Your task to perform on an android device: toggle priority inbox in the gmail app Image 0: 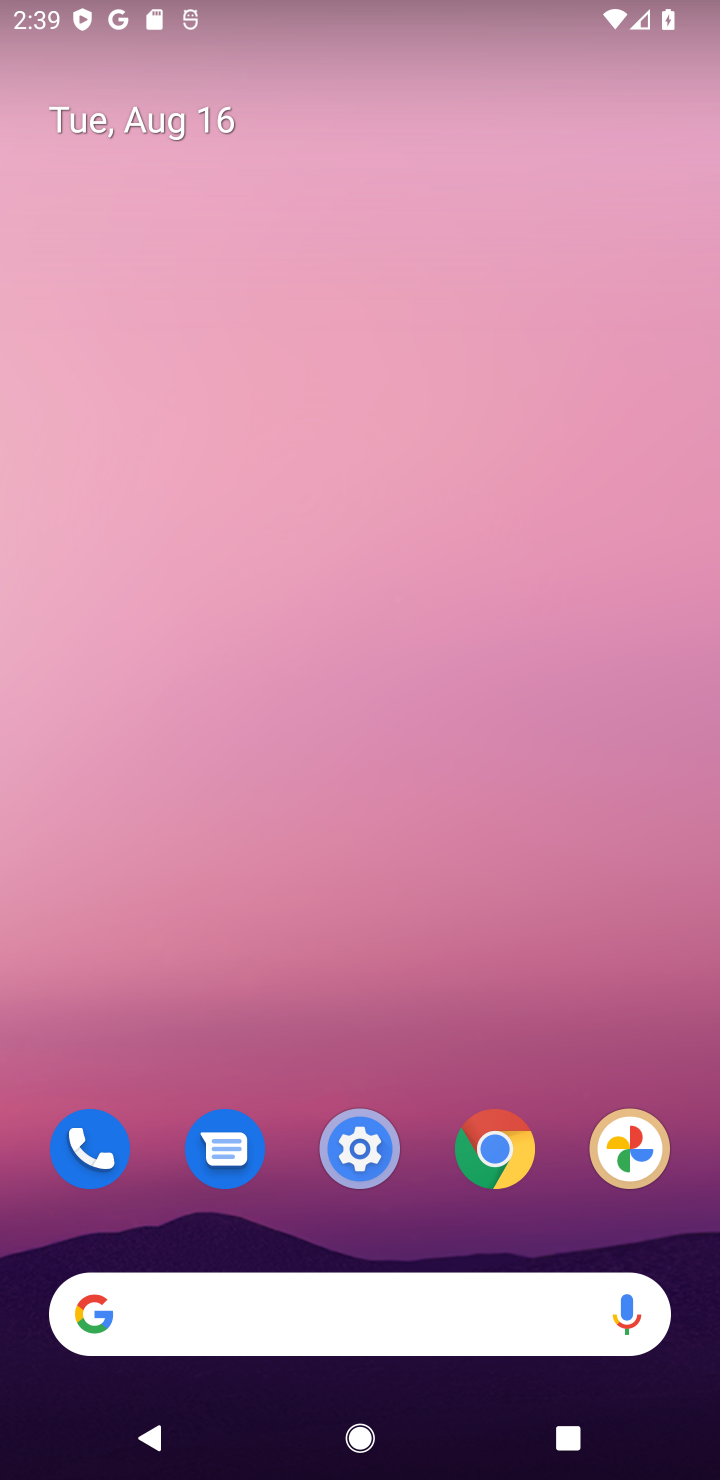
Step 0: drag from (437, 993) to (468, 1)
Your task to perform on an android device: toggle priority inbox in the gmail app Image 1: 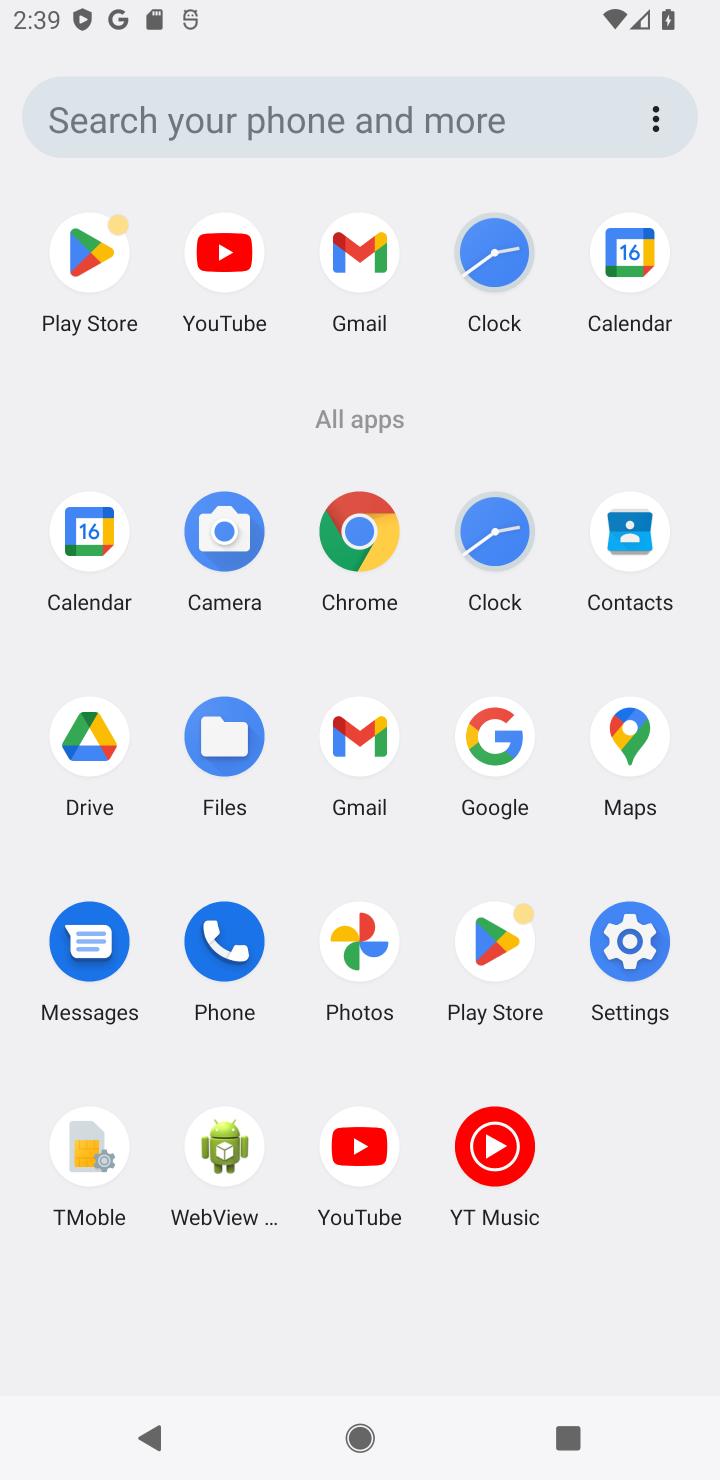
Step 1: click (365, 246)
Your task to perform on an android device: toggle priority inbox in the gmail app Image 2: 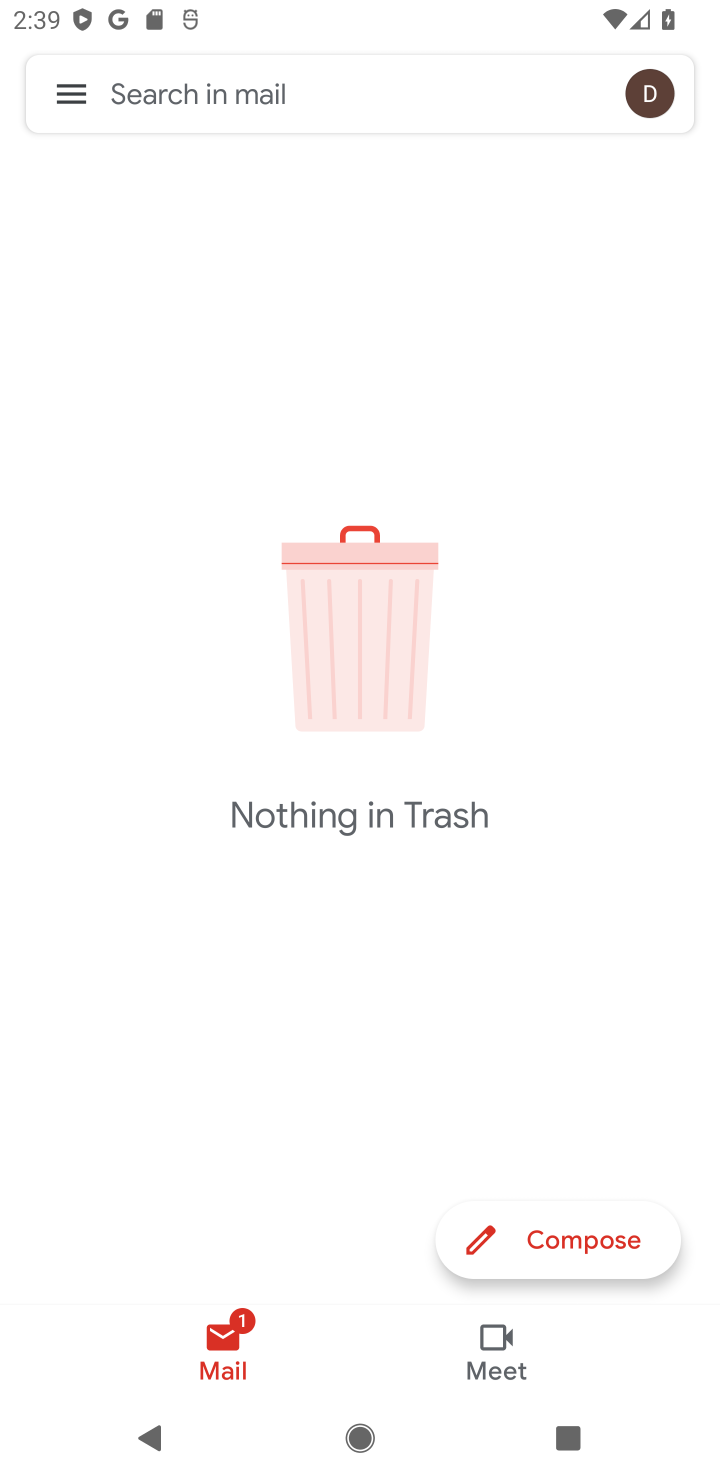
Step 2: click (70, 77)
Your task to perform on an android device: toggle priority inbox in the gmail app Image 3: 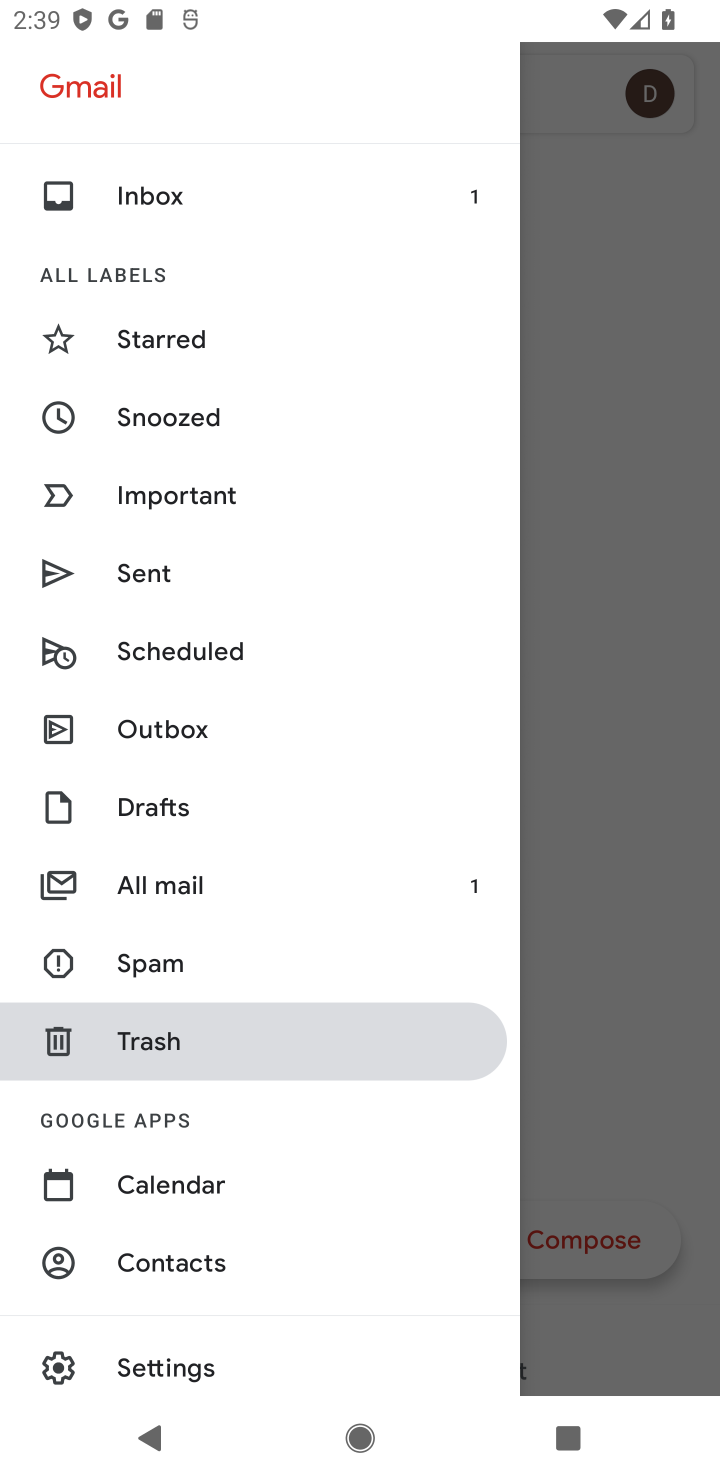
Step 3: drag from (224, 1219) to (286, 118)
Your task to perform on an android device: toggle priority inbox in the gmail app Image 4: 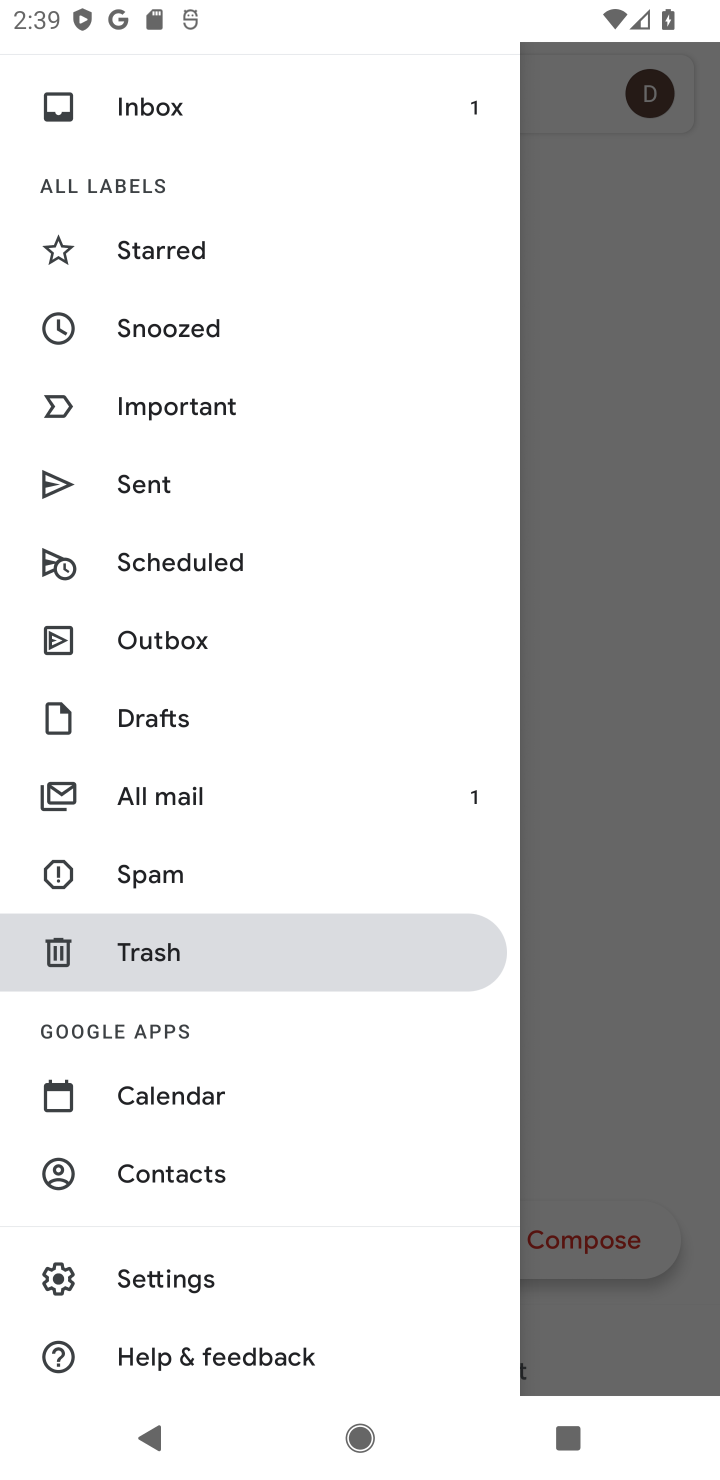
Step 4: click (204, 1261)
Your task to perform on an android device: toggle priority inbox in the gmail app Image 5: 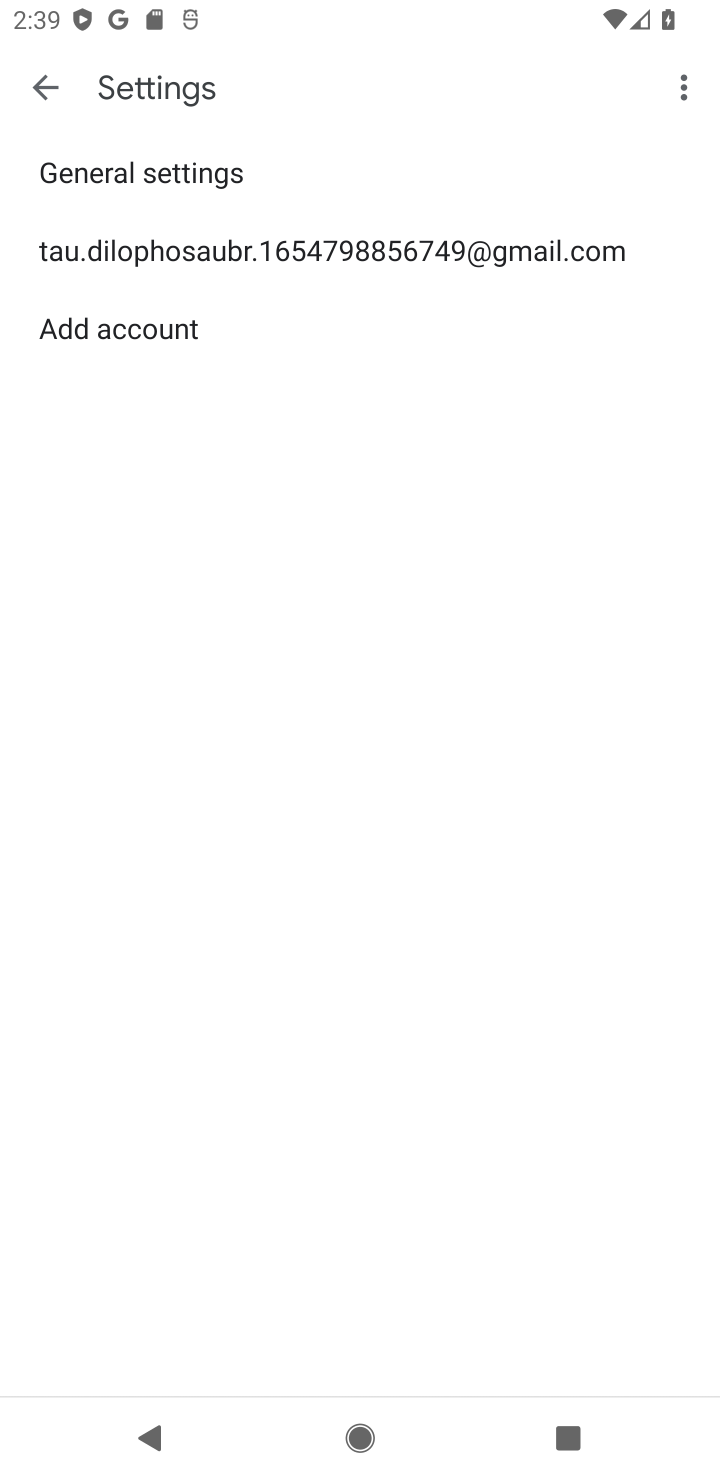
Step 5: click (400, 241)
Your task to perform on an android device: toggle priority inbox in the gmail app Image 6: 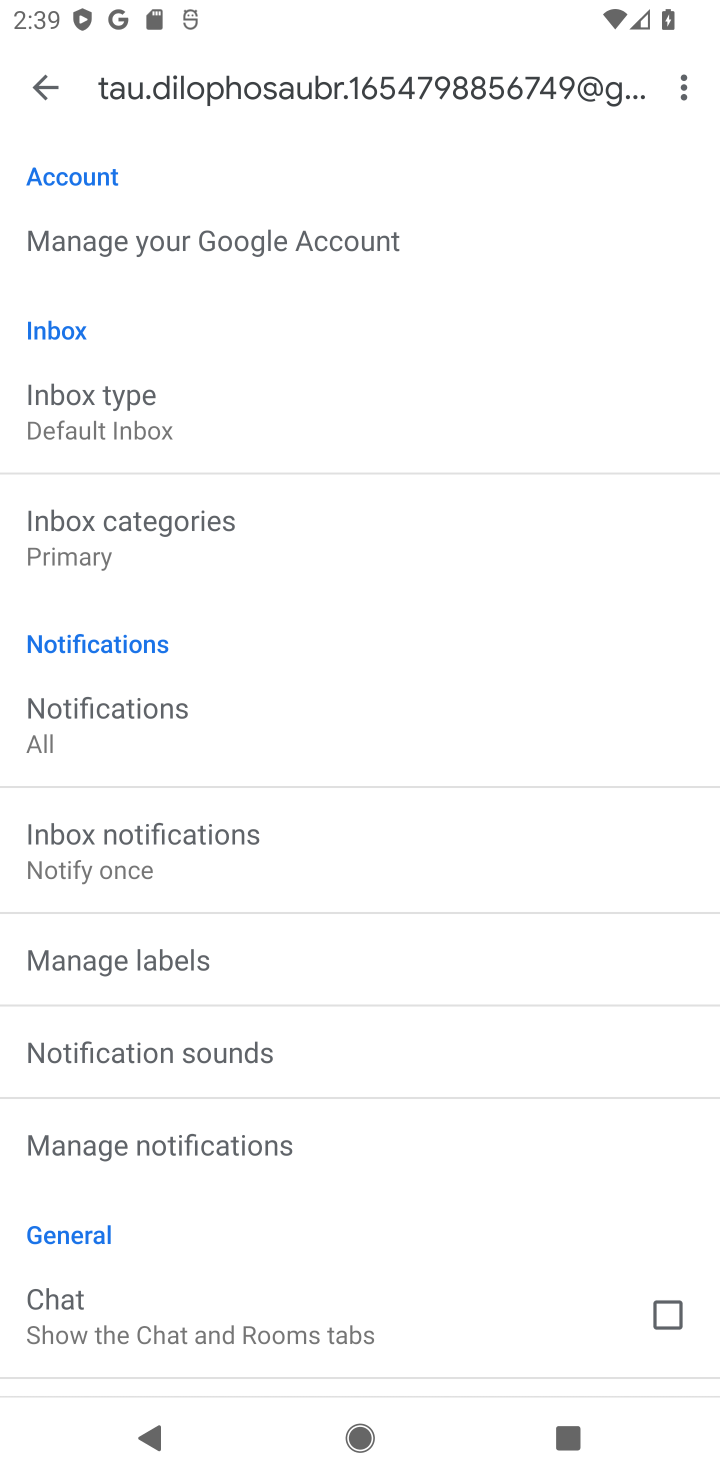
Step 6: click (135, 410)
Your task to perform on an android device: toggle priority inbox in the gmail app Image 7: 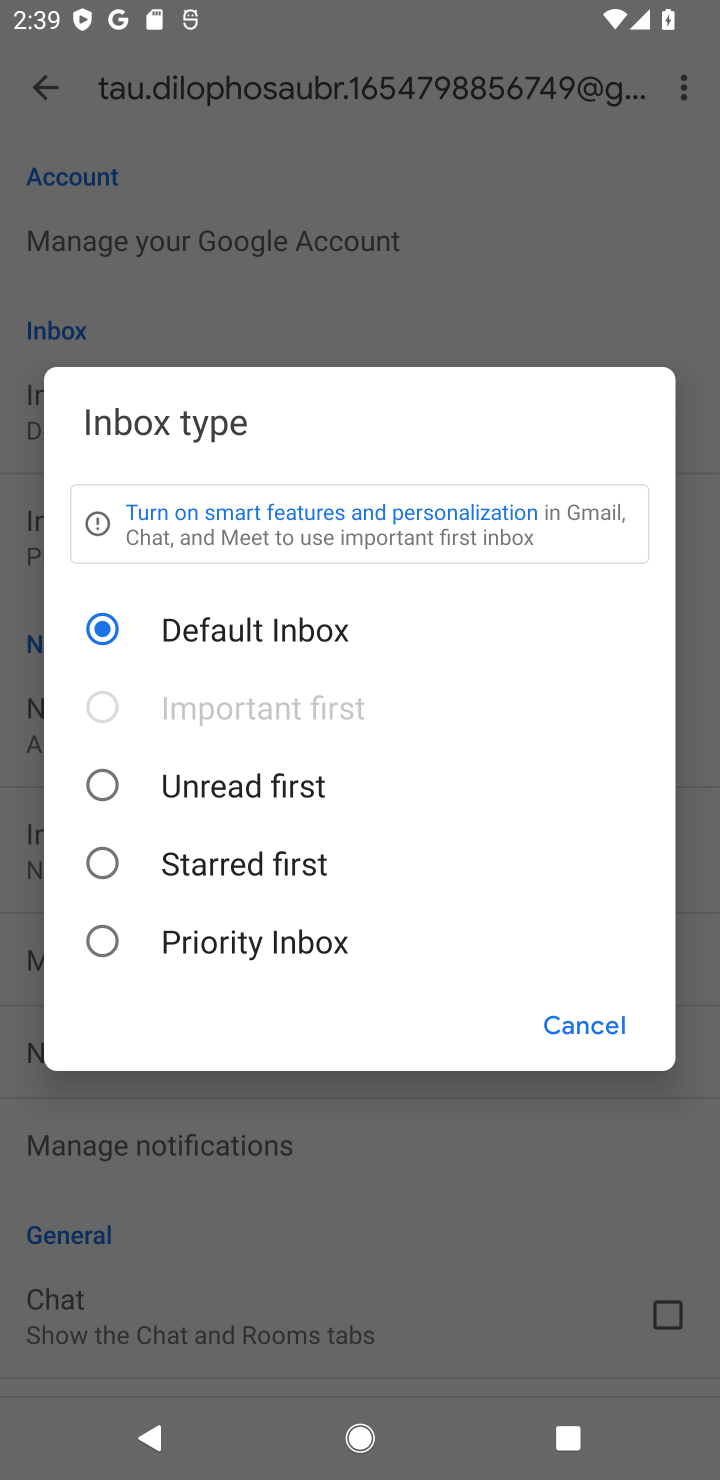
Step 7: click (92, 939)
Your task to perform on an android device: toggle priority inbox in the gmail app Image 8: 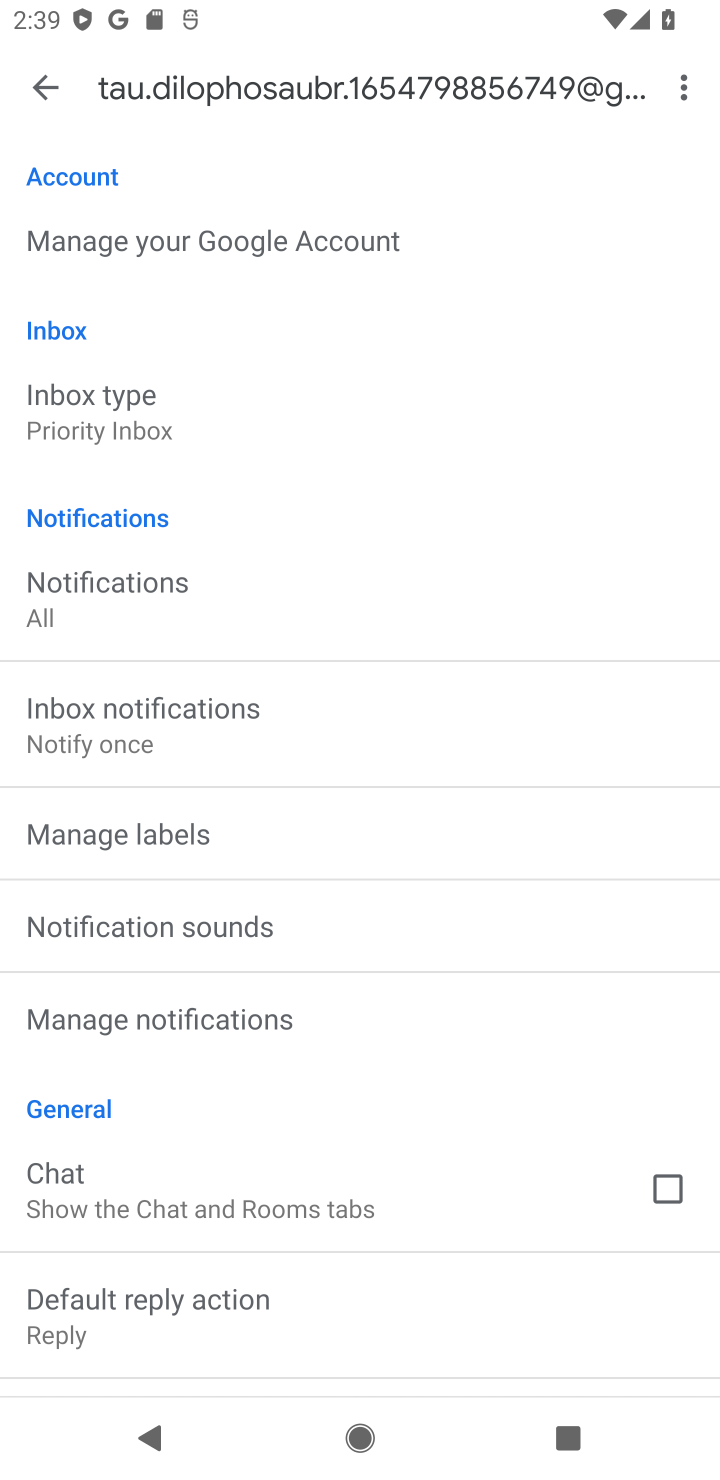
Step 8: task complete